Your task to perform on an android device: Show me popular videos on Youtube Image 0: 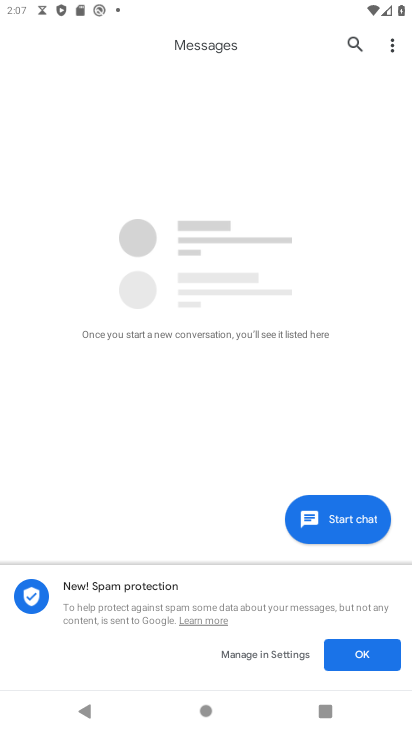
Step 0: press home button
Your task to perform on an android device: Show me popular videos on Youtube Image 1: 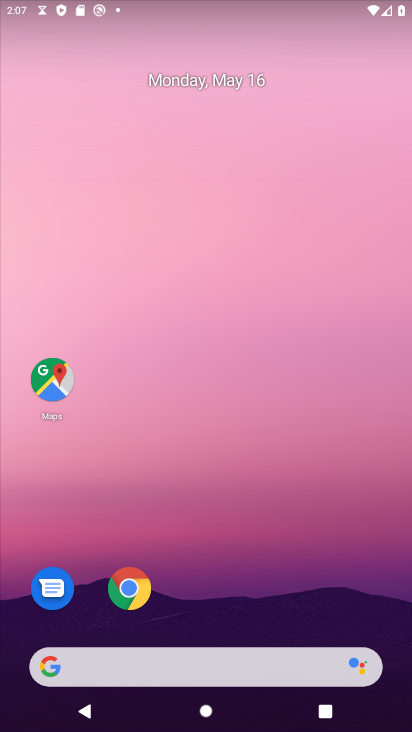
Step 1: drag from (196, 725) to (192, 232)
Your task to perform on an android device: Show me popular videos on Youtube Image 2: 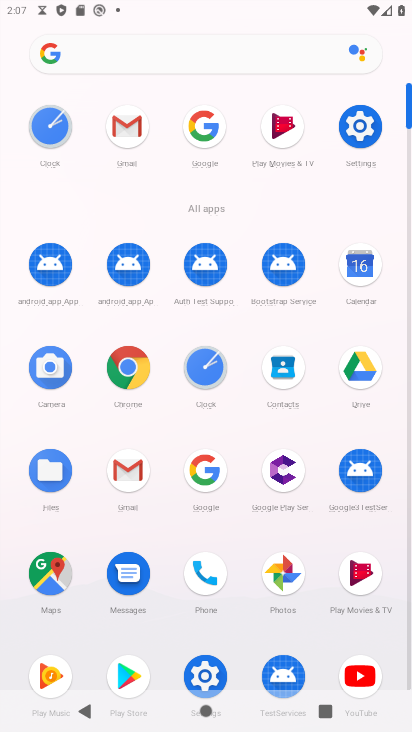
Step 2: click (348, 670)
Your task to perform on an android device: Show me popular videos on Youtube Image 3: 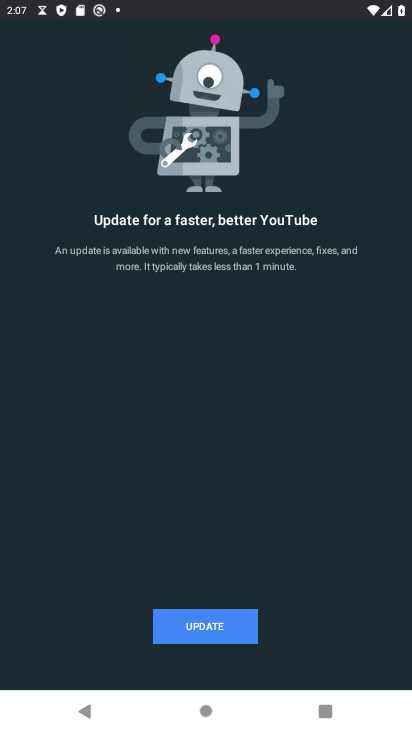
Step 3: task complete